Your task to perform on an android device: Open wifi settings Image 0: 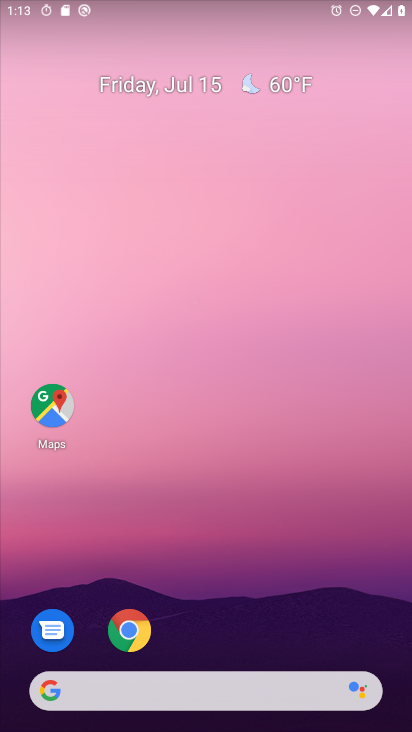
Step 0: drag from (199, 633) to (169, 2)
Your task to perform on an android device: Open wifi settings Image 1: 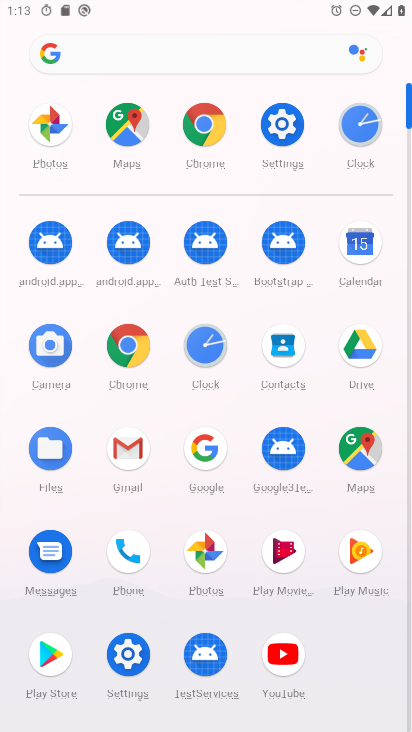
Step 1: click (279, 121)
Your task to perform on an android device: Open wifi settings Image 2: 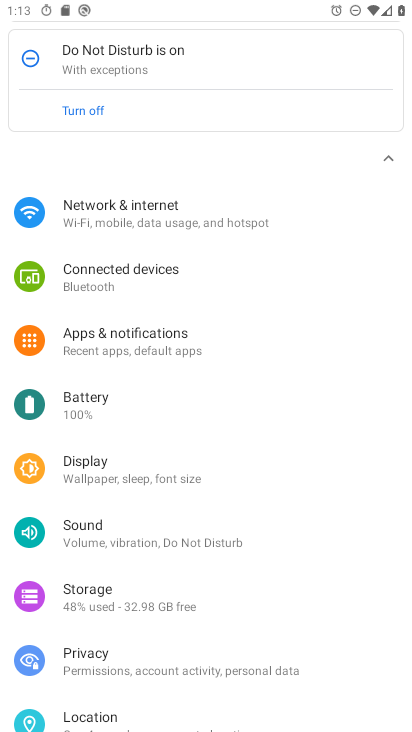
Step 2: click (155, 222)
Your task to perform on an android device: Open wifi settings Image 3: 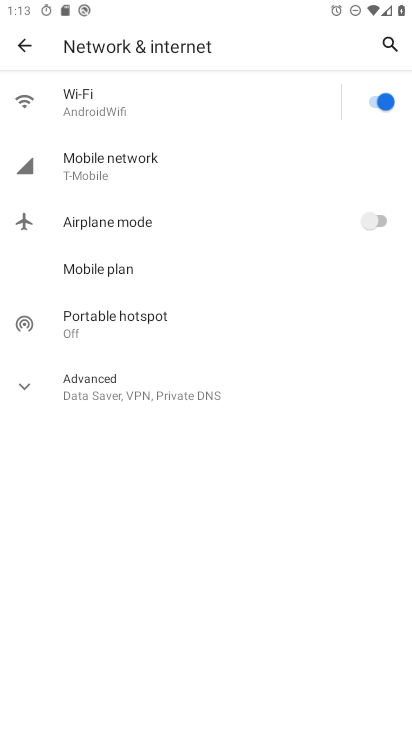
Step 3: task complete